Your task to perform on an android device: Is it going to rain today? Image 0: 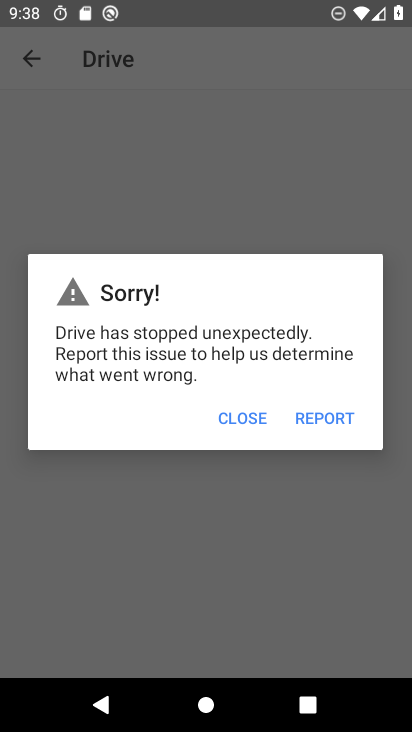
Step 0: press home button
Your task to perform on an android device: Is it going to rain today? Image 1: 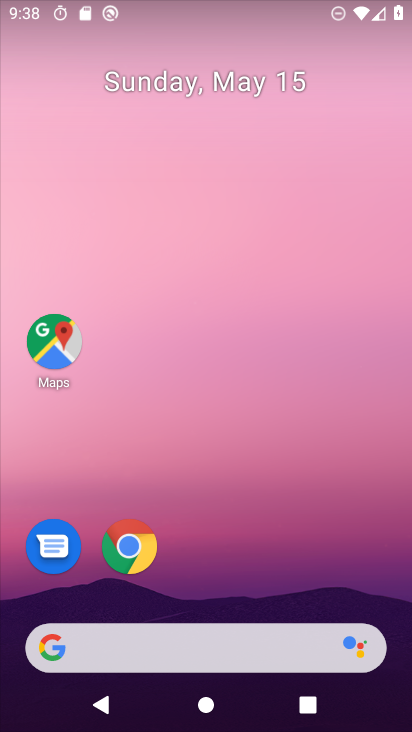
Step 1: click (239, 646)
Your task to perform on an android device: Is it going to rain today? Image 2: 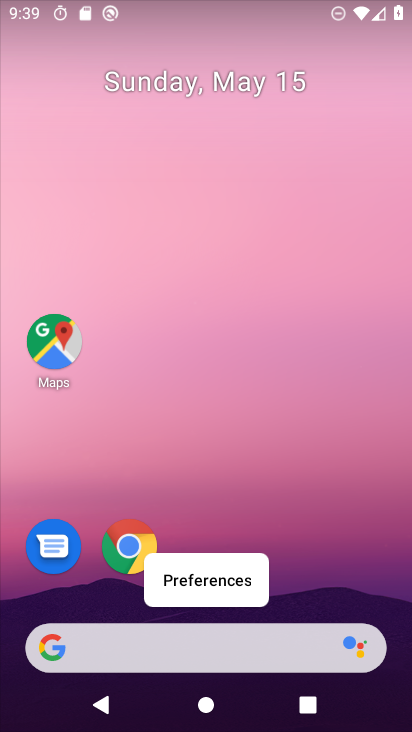
Step 2: click (249, 652)
Your task to perform on an android device: Is it going to rain today? Image 3: 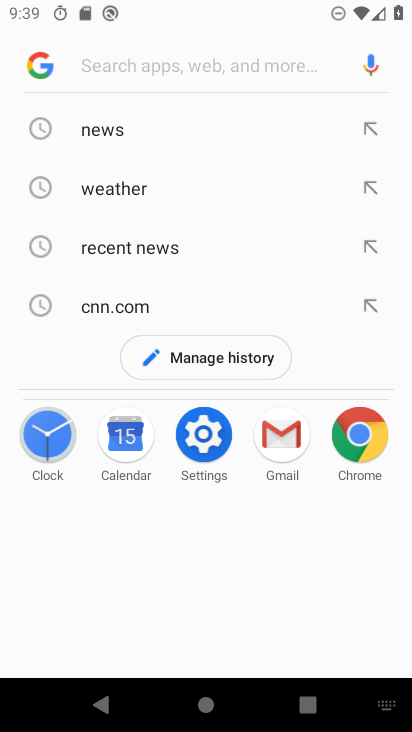
Step 3: click (38, 63)
Your task to perform on an android device: Is it going to rain today? Image 4: 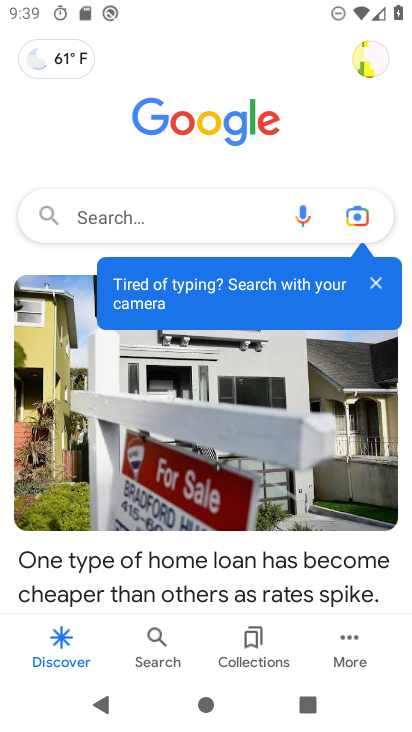
Step 4: click (377, 282)
Your task to perform on an android device: Is it going to rain today? Image 5: 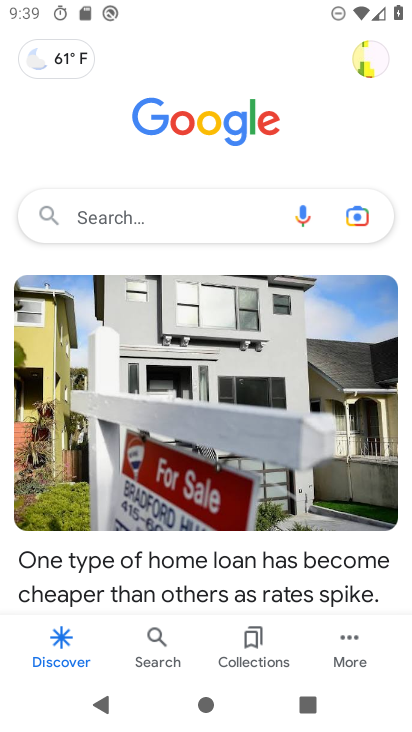
Step 5: click (170, 209)
Your task to perform on an android device: Is it going to rain today? Image 6: 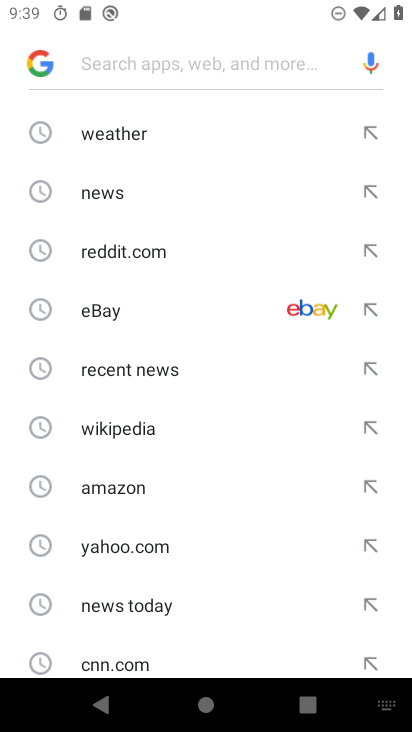
Step 6: click (102, 134)
Your task to perform on an android device: Is it going to rain today? Image 7: 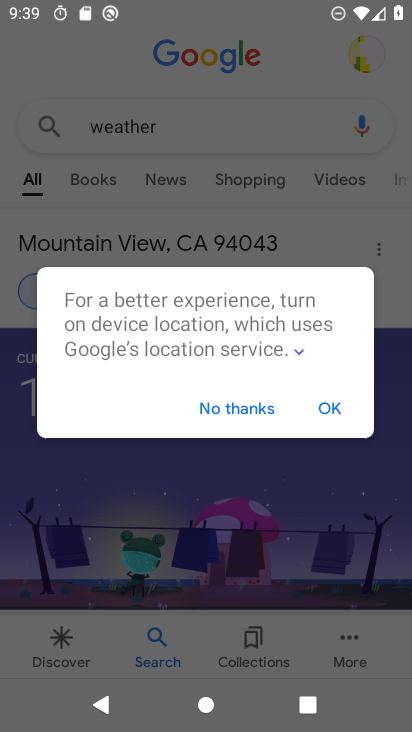
Step 7: click (235, 402)
Your task to perform on an android device: Is it going to rain today? Image 8: 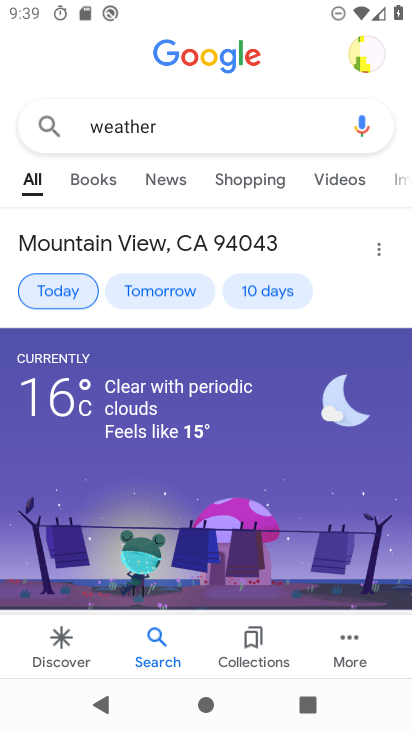
Step 8: click (81, 289)
Your task to perform on an android device: Is it going to rain today? Image 9: 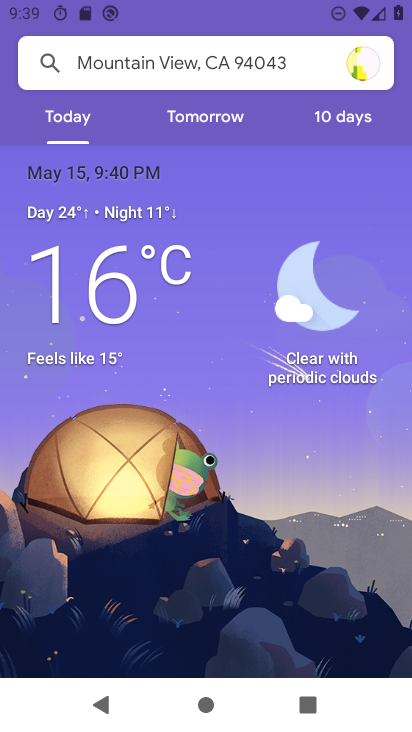
Step 9: task complete